Your task to perform on an android device: Open CNN.com Image 0: 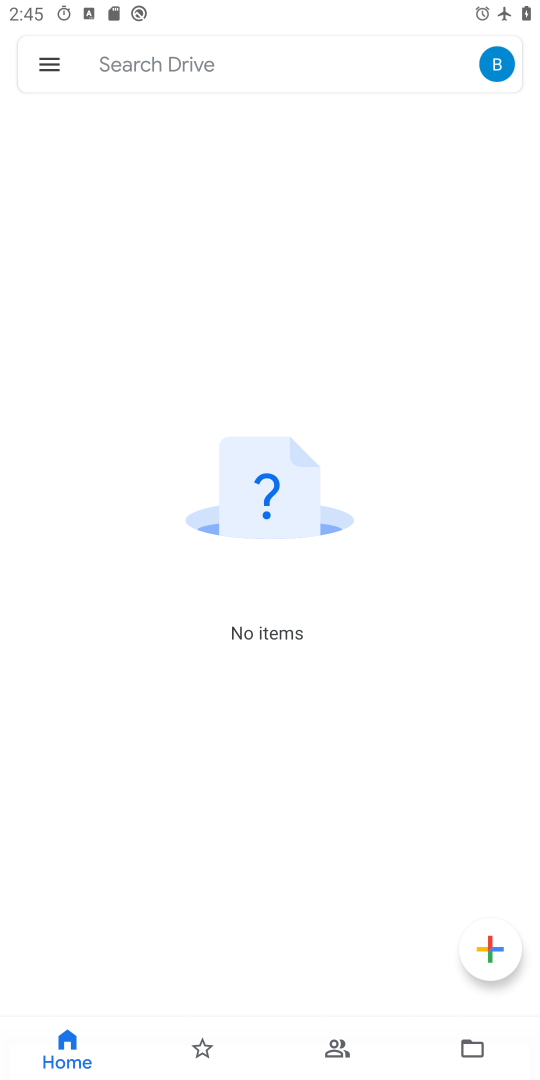
Step 0: press home button
Your task to perform on an android device: Open CNN.com Image 1: 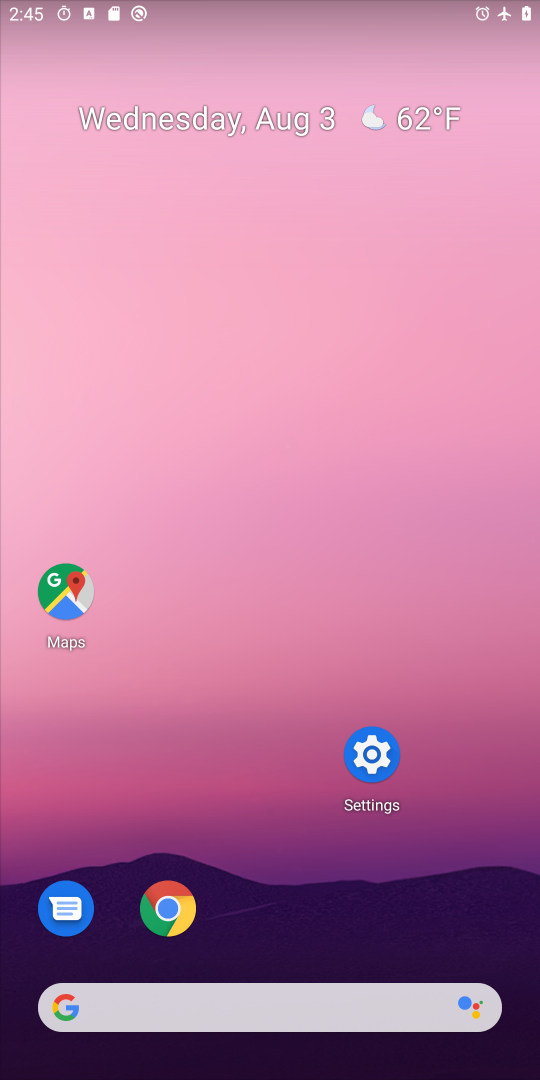
Step 1: drag from (267, 913) to (375, 114)
Your task to perform on an android device: Open CNN.com Image 2: 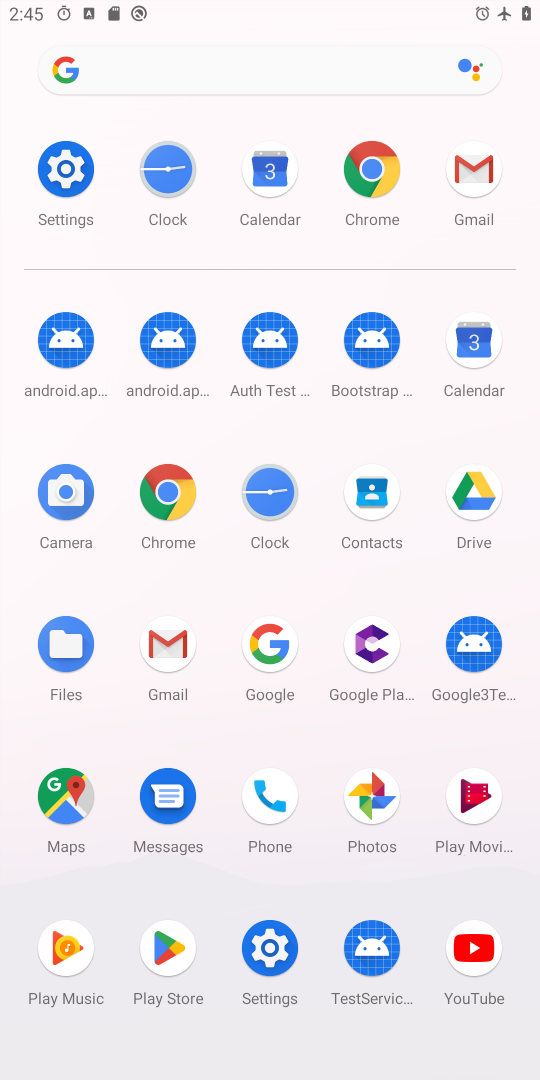
Step 2: click (166, 508)
Your task to perform on an android device: Open CNN.com Image 3: 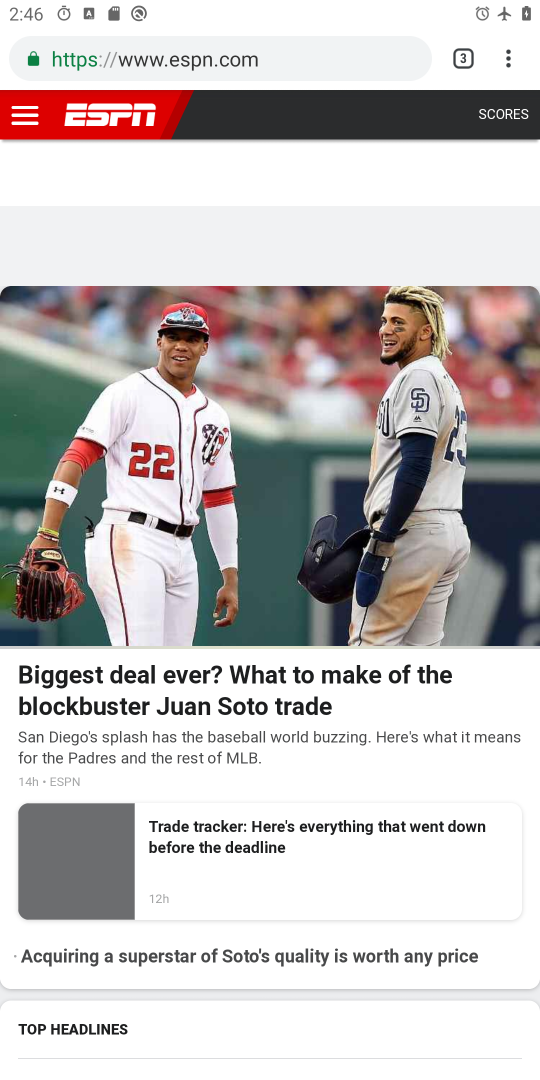
Step 3: click (469, 64)
Your task to perform on an android device: Open CNN.com Image 4: 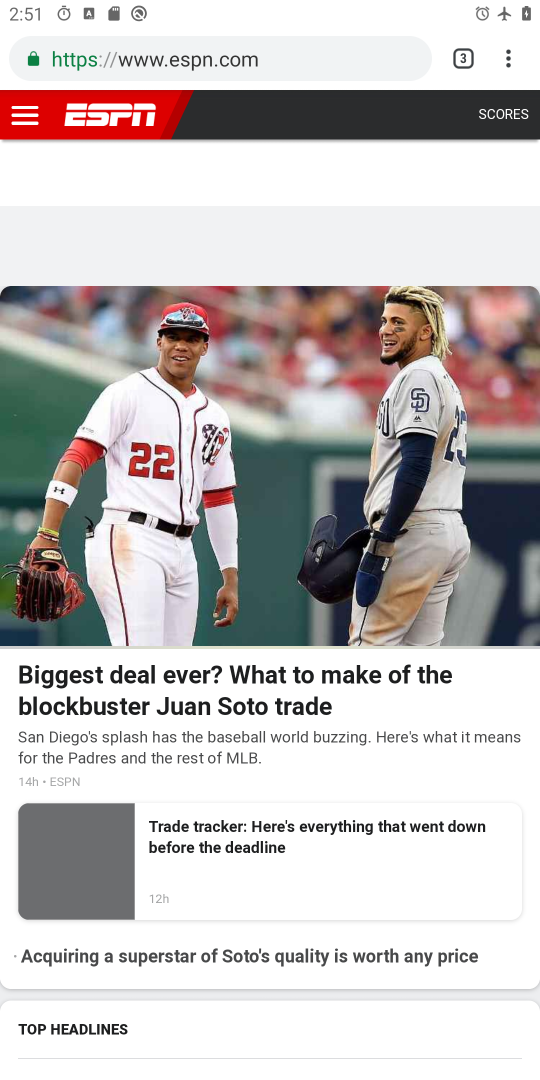
Step 4: click (473, 62)
Your task to perform on an android device: Open CNN.com Image 5: 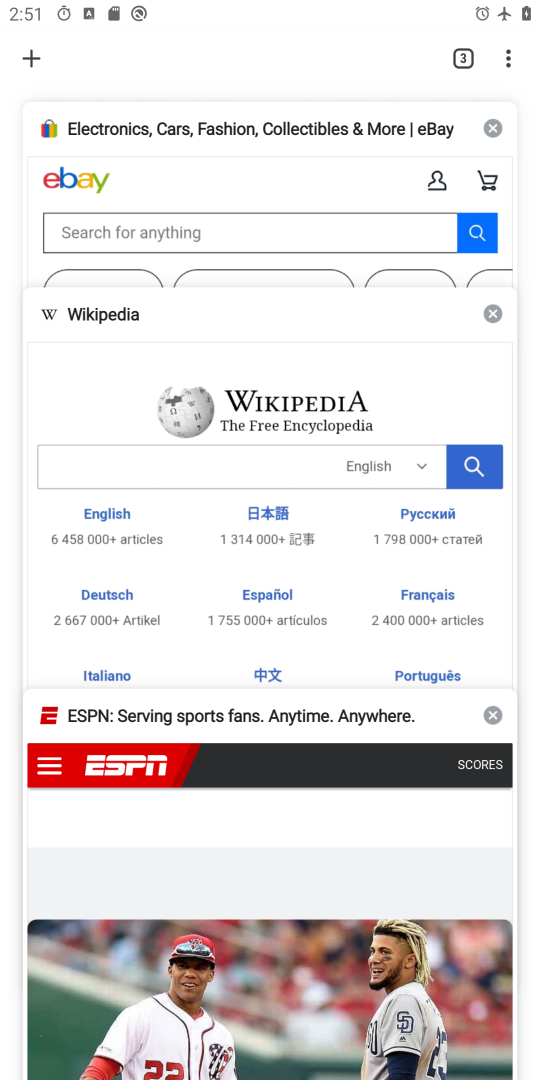
Step 5: click (25, 63)
Your task to perform on an android device: Open CNN.com Image 6: 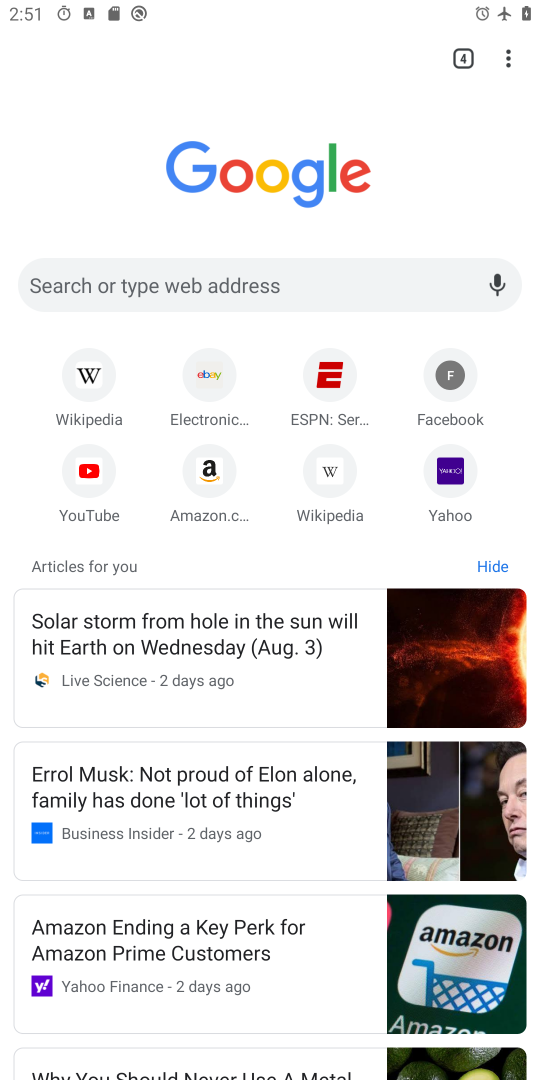
Step 6: click (258, 294)
Your task to perform on an android device: Open CNN.com Image 7: 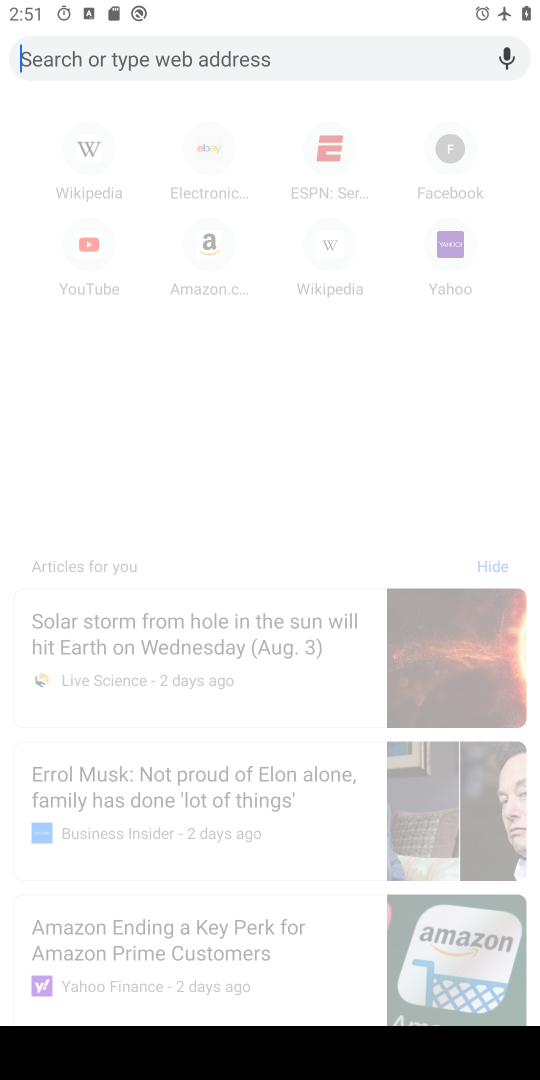
Step 7: type "CNN.com"
Your task to perform on an android device: Open CNN.com Image 8: 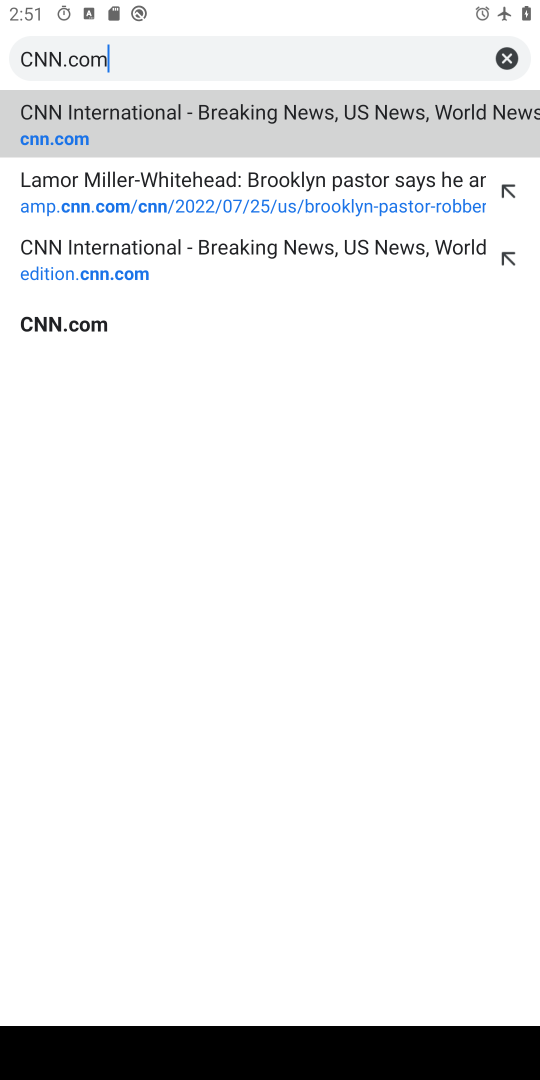
Step 8: type ""
Your task to perform on an android device: Open CNN.com Image 9: 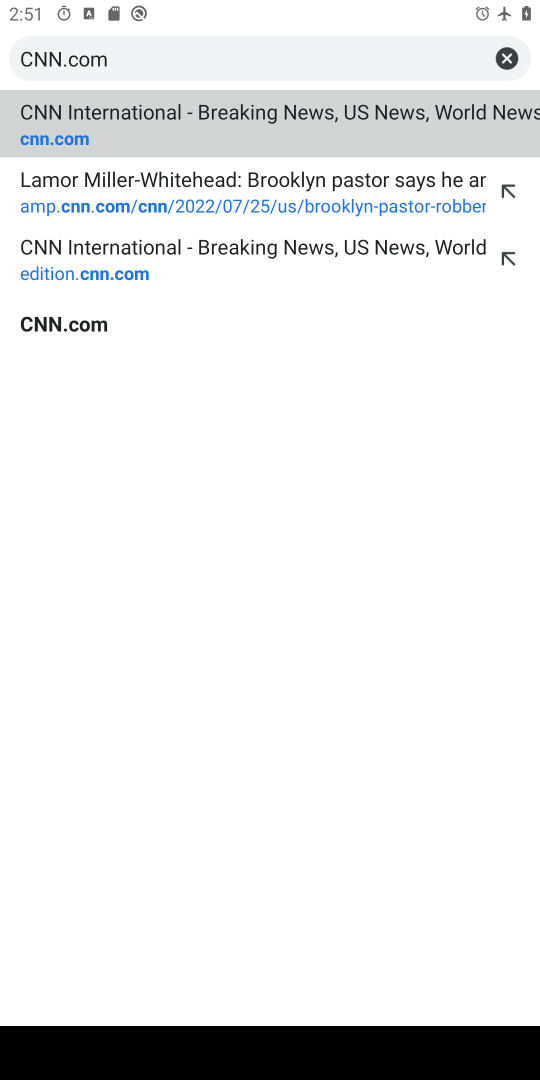
Step 9: click (220, 131)
Your task to perform on an android device: Open CNN.com Image 10: 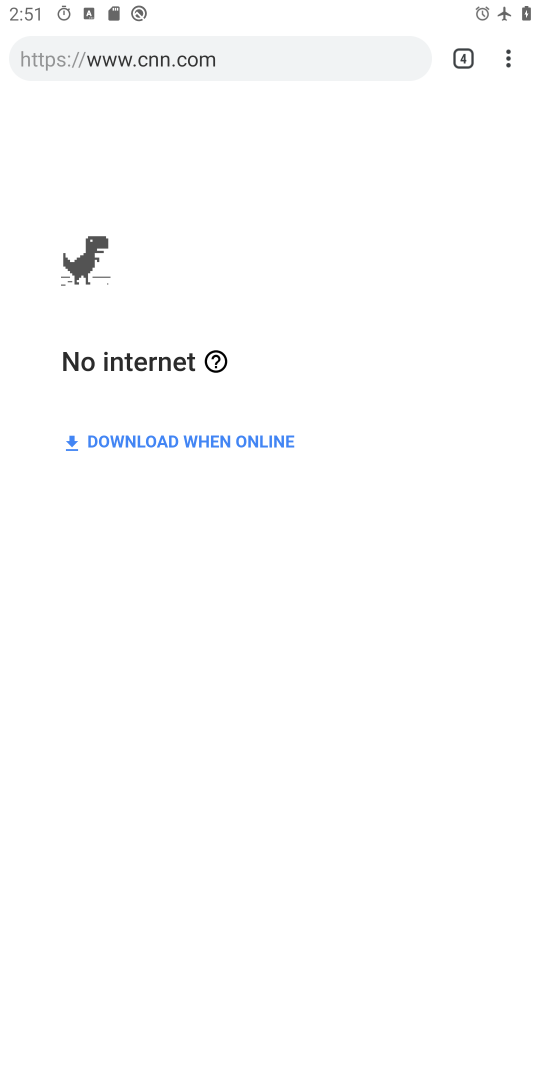
Step 10: task complete